Your task to perform on an android device: set the stopwatch Image 0: 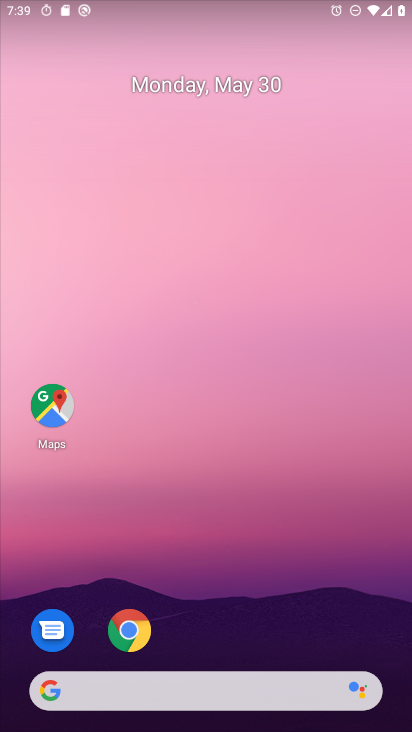
Step 0: drag from (358, 619) to (225, 2)
Your task to perform on an android device: set the stopwatch Image 1: 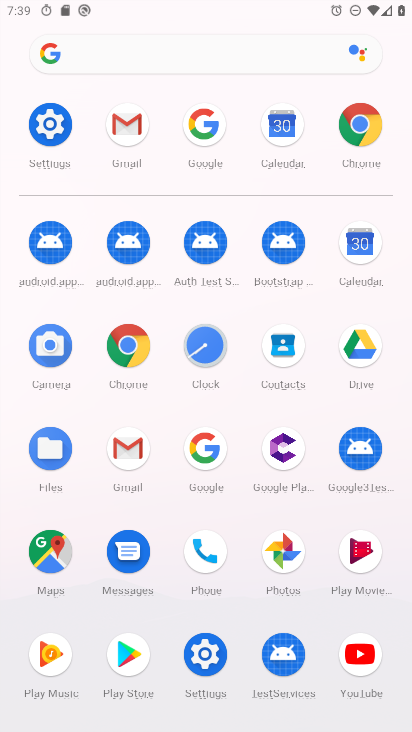
Step 1: click (196, 363)
Your task to perform on an android device: set the stopwatch Image 2: 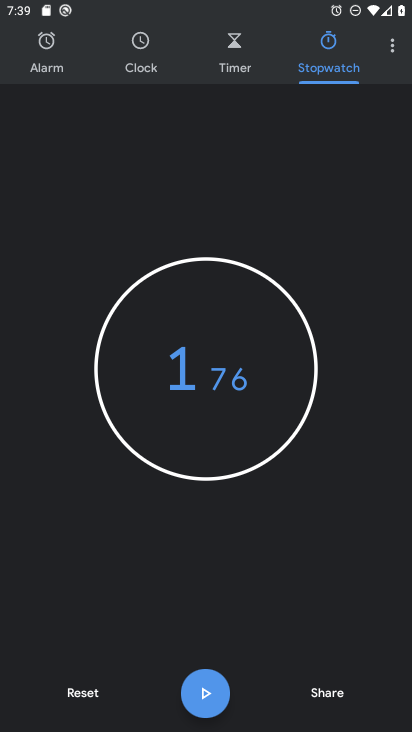
Step 2: task complete